Your task to perform on an android device: toggle improve location accuracy Image 0: 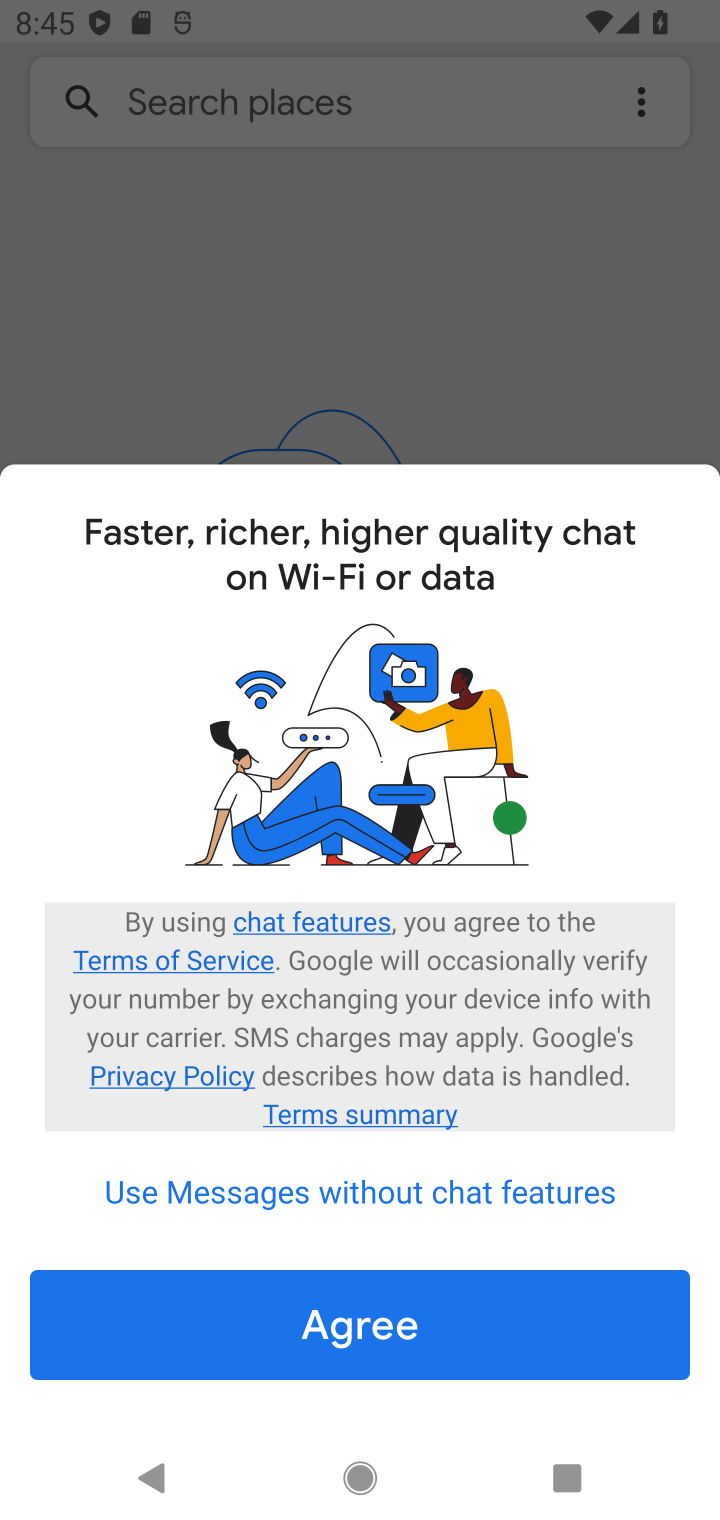
Step 0: press home button
Your task to perform on an android device: toggle improve location accuracy Image 1: 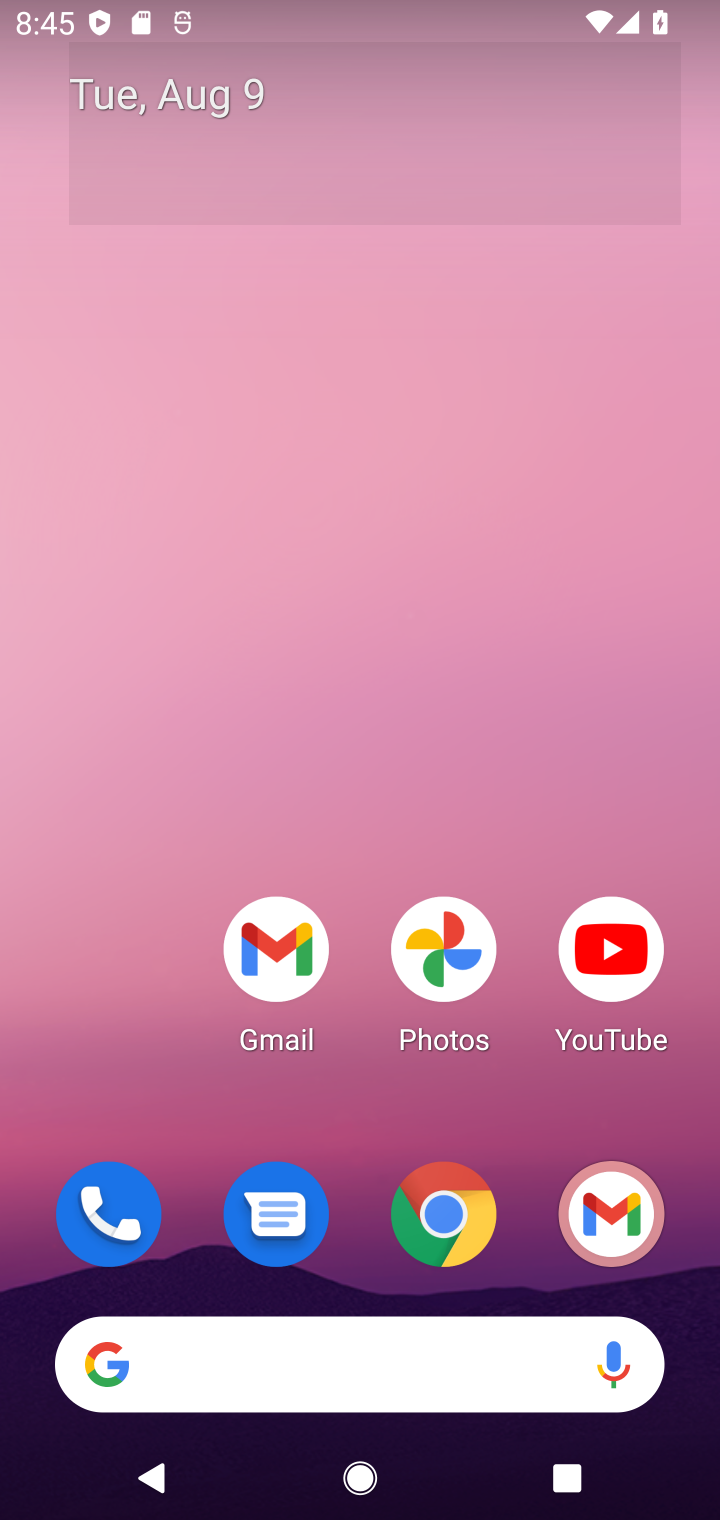
Step 1: drag from (44, 1511) to (379, 223)
Your task to perform on an android device: toggle improve location accuracy Image 2: 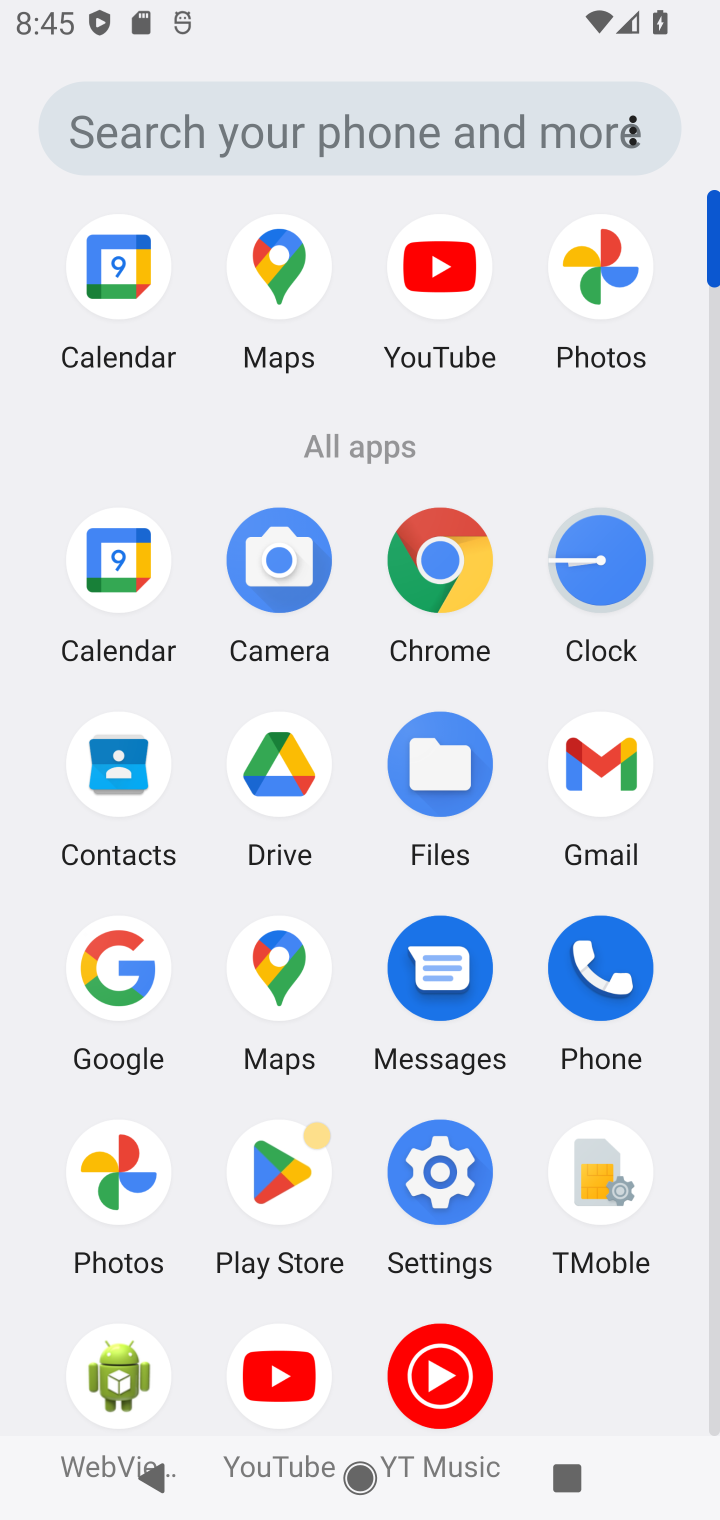
Step 2: click (440, 1181)
Your task to perform on an android device: toggle improve location accuracy Image 3: 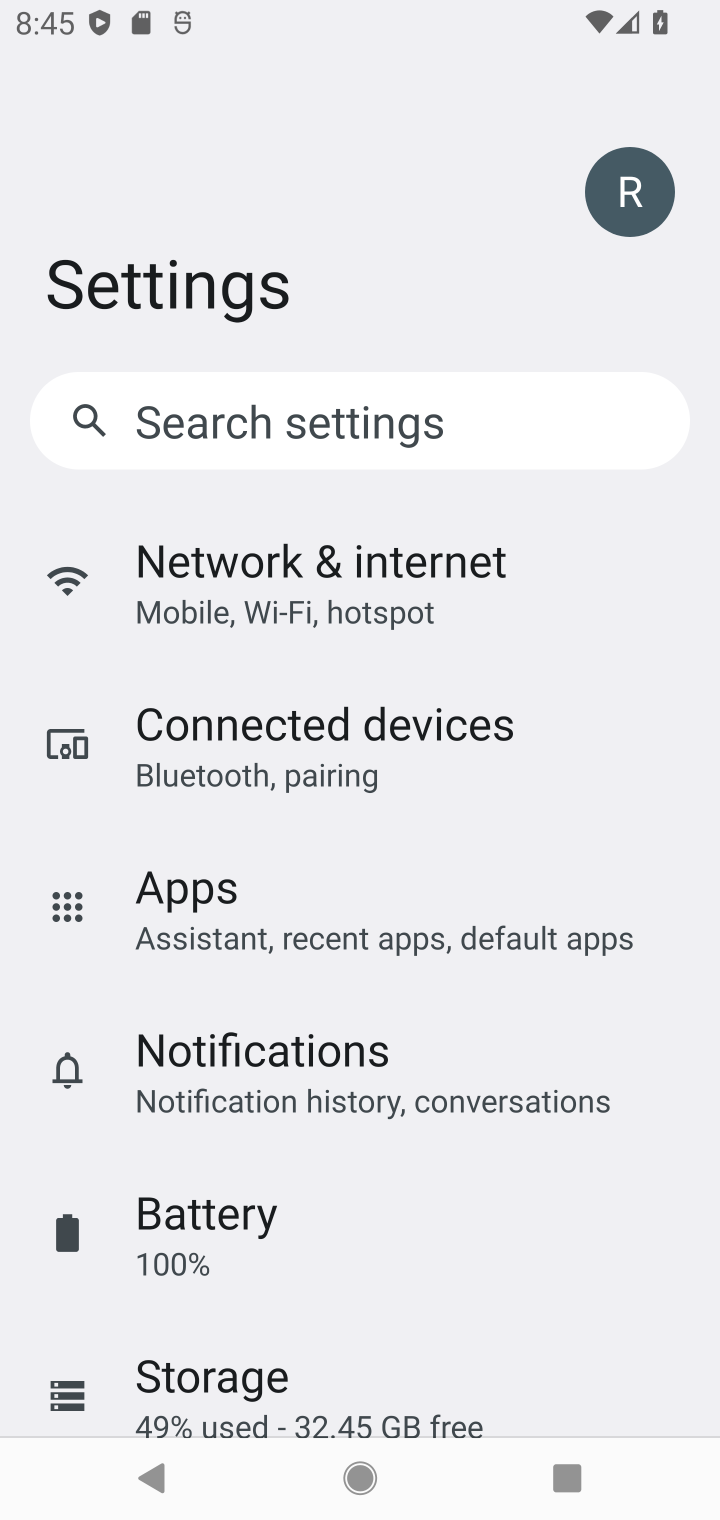
Step 3: drag from (479, 1197) to (485, 499)
Your task to perform on an android device: toggle improve location accuracy Image 4: 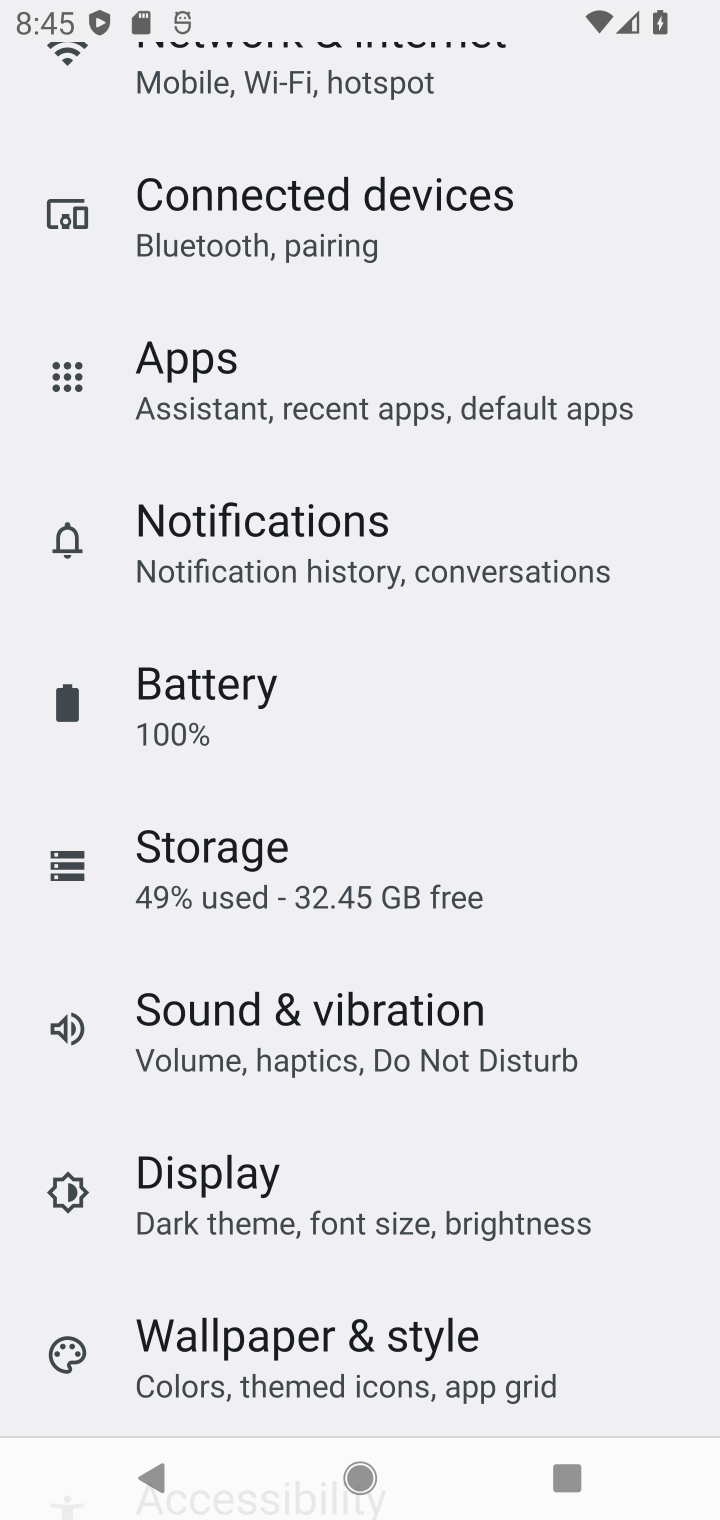
Step 4: drag from (619, 1348) to (625, 572)
Your task to perform on an android device: toggle improve location accuracy Image 5: 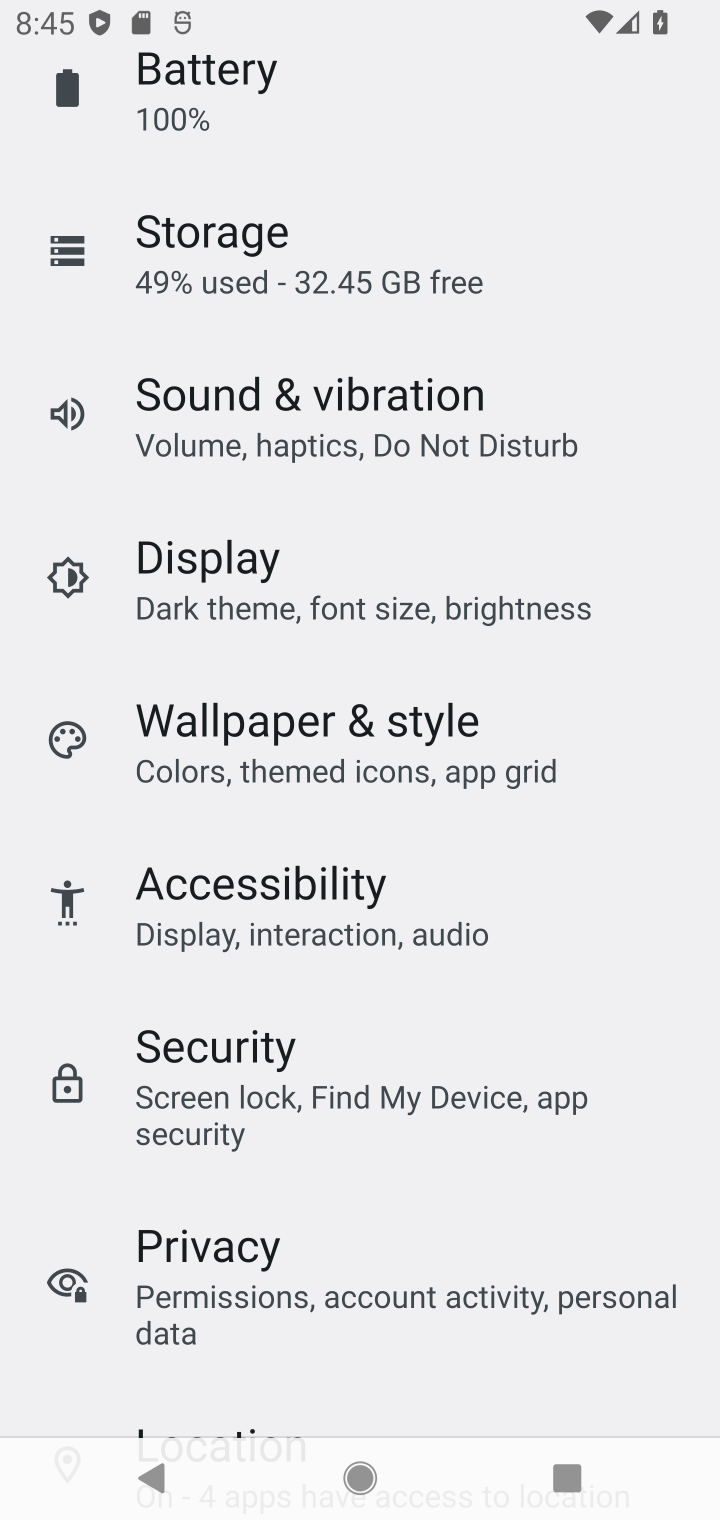
Step 5: drag from (590, 1326) to (694, 199)
Your task to perform on an android device: toggle improve location accuracy Image 6: 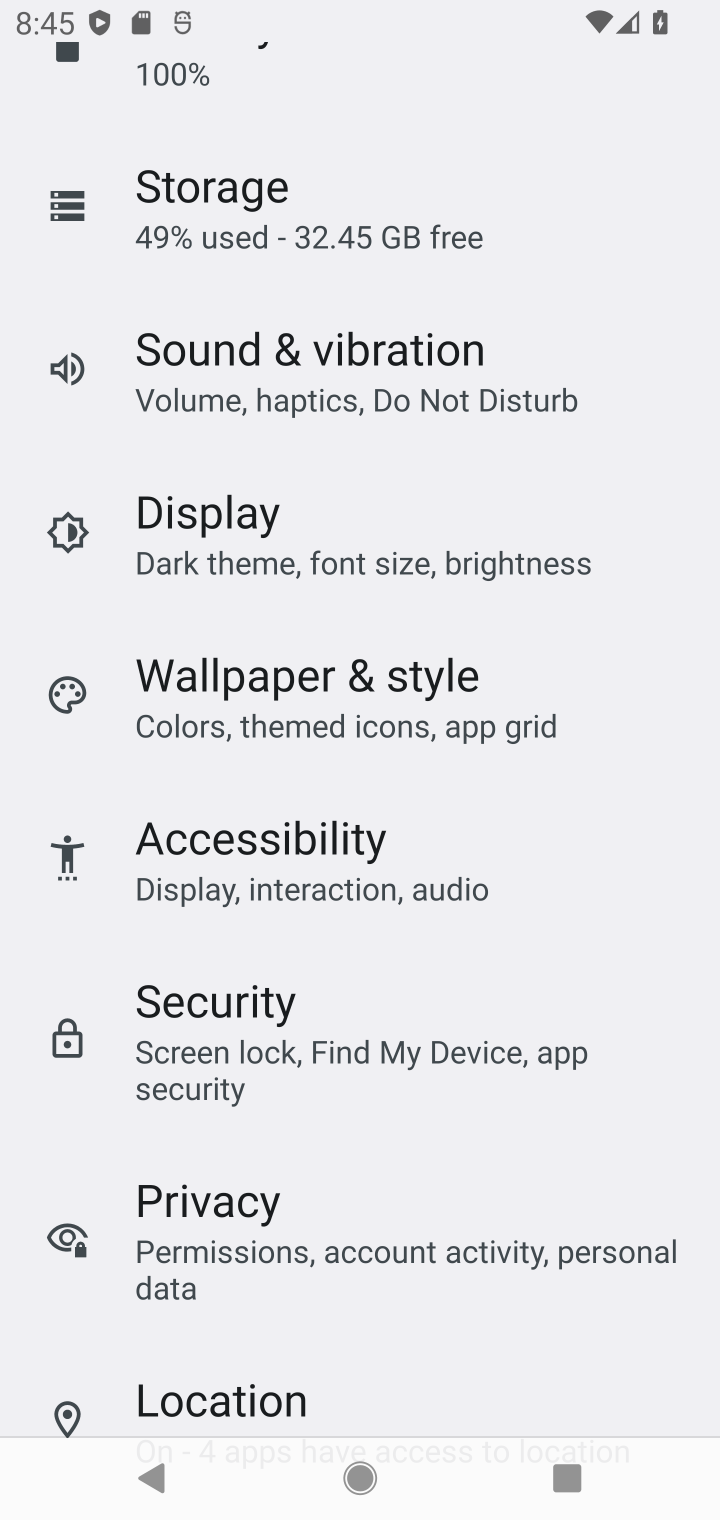
Step 6: click (217, 1406)
Your task to perform on an android device: toggle improve location accuracy Image 7: 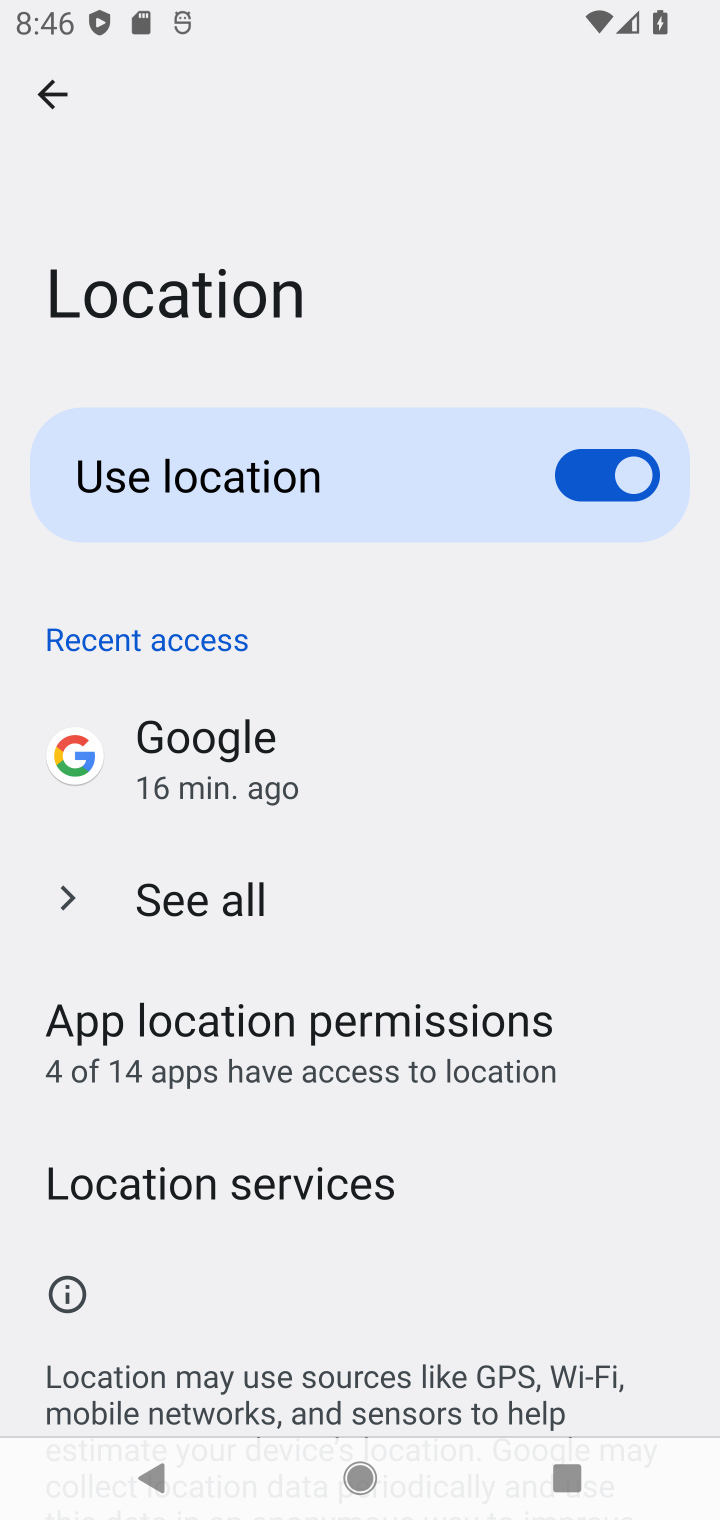
Step 7: drag from (516, 1217) to (374, 524)
Your task to perform on an android device: toggle improve location accuracy Image 8: 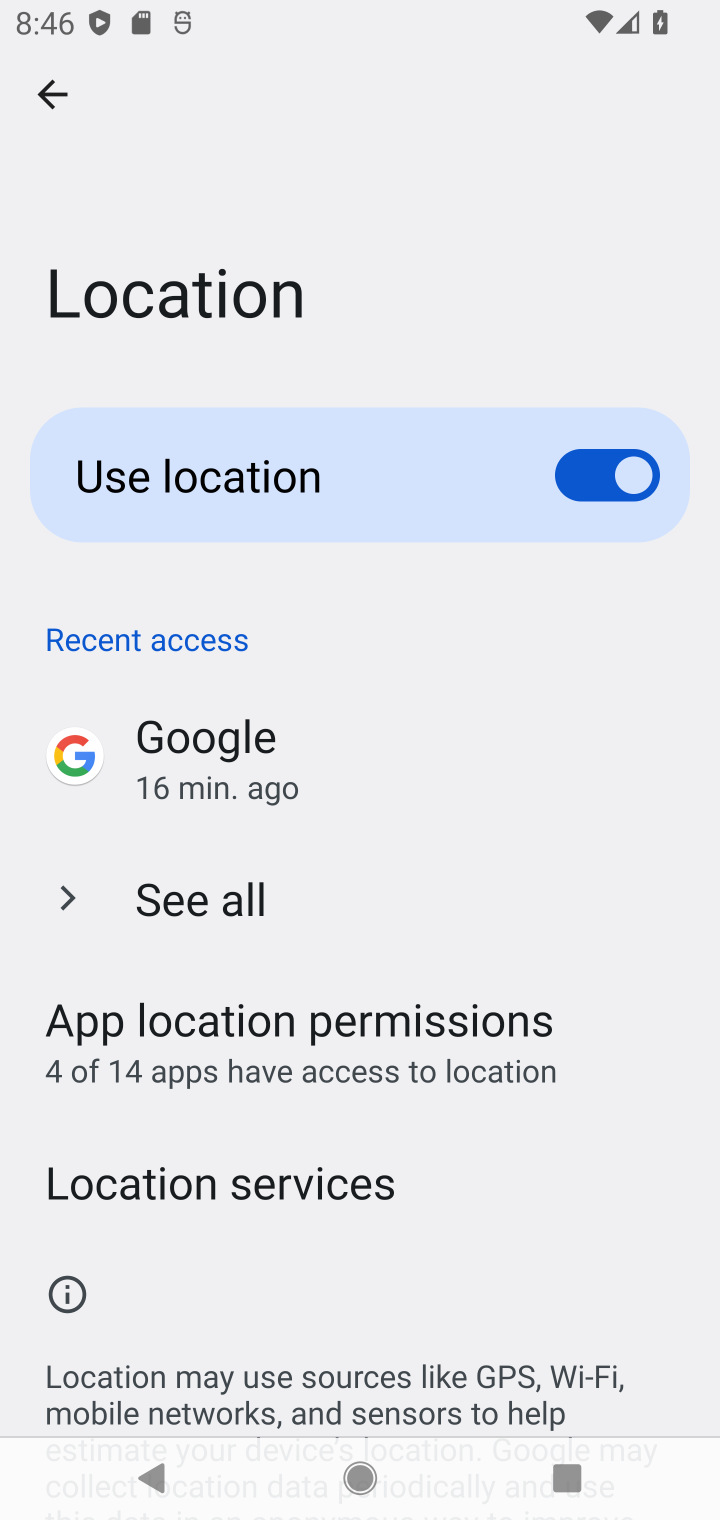
Step 8: drag from (478, 1314) to (313, 333)
Your task to perform on an android device: toggle improve location accuracy Image 9: 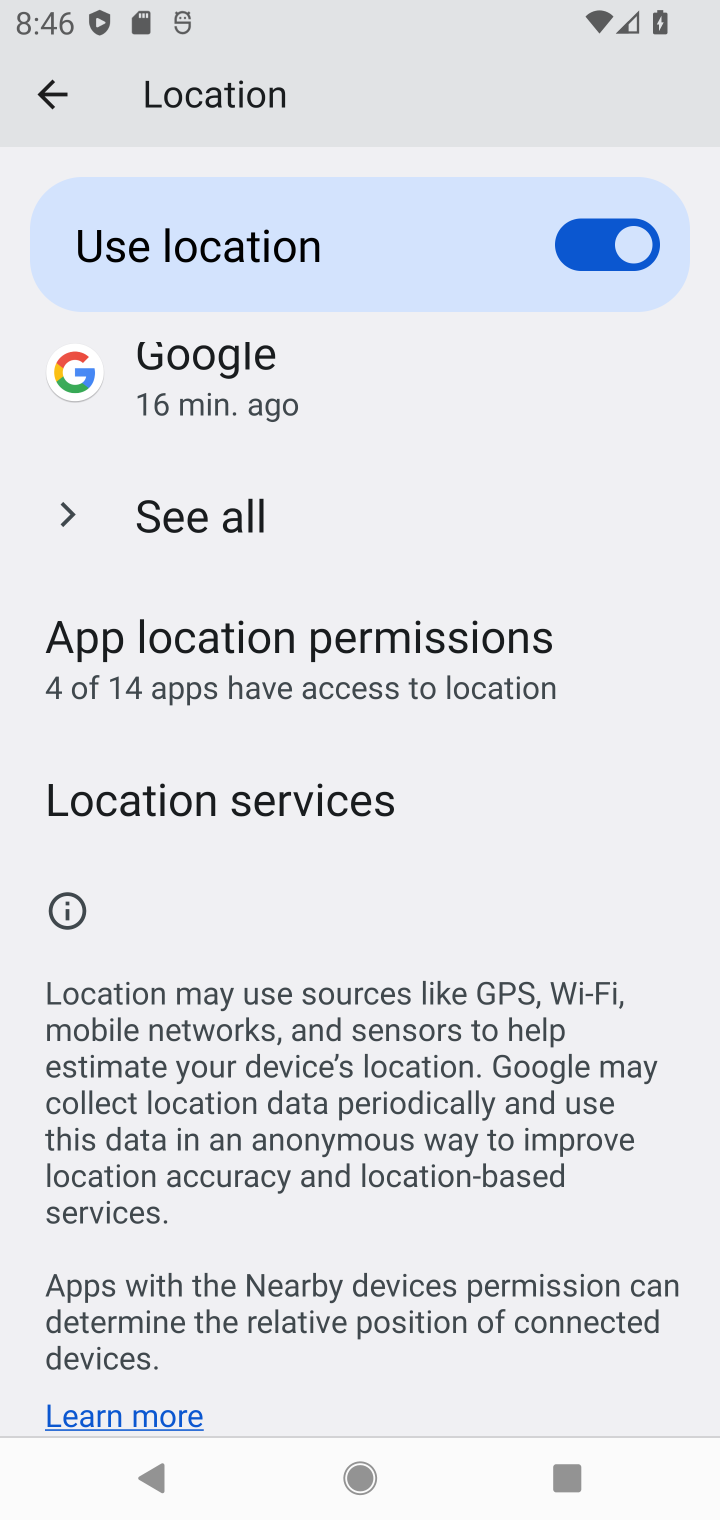
Step 9: click (259, 660)
Your task to perform on an android device: toggle improve location accuracy Image 10: 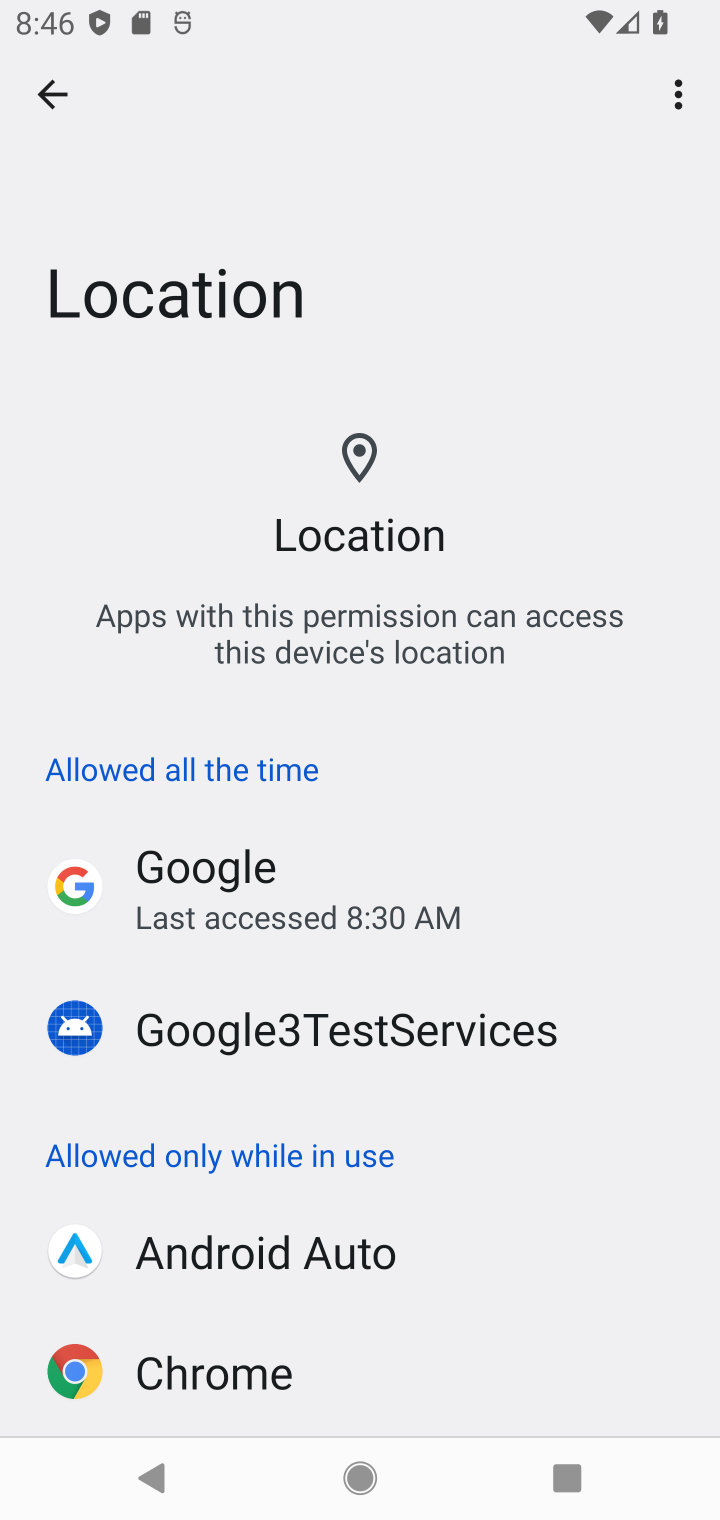
Step 10: task complete